Your task to perform on an android device: Open Reddit.com Image 0: 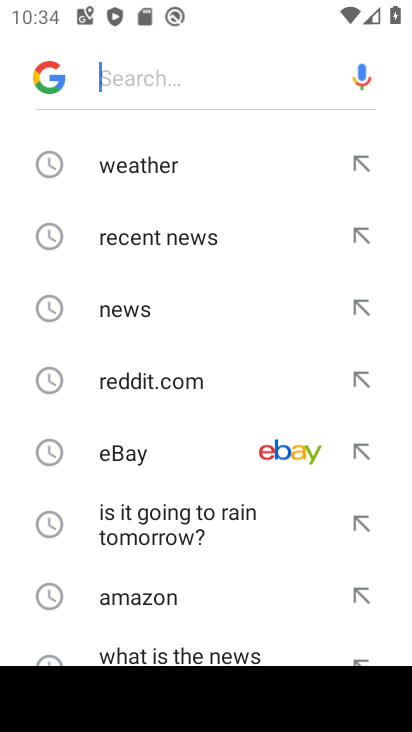
Step 0: press home button
Your task to perform on an android device: Open Reddit.com Image 1: 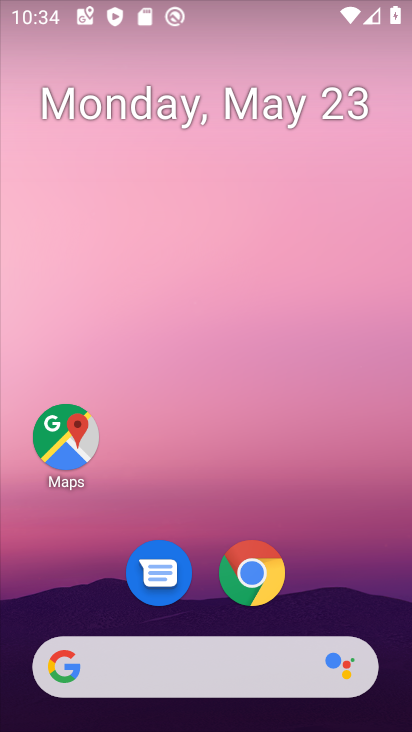
Step 1: drag from (256, 588) to (339, 176)
Your task to perform on an android device: Open Reddit.com Image 2: 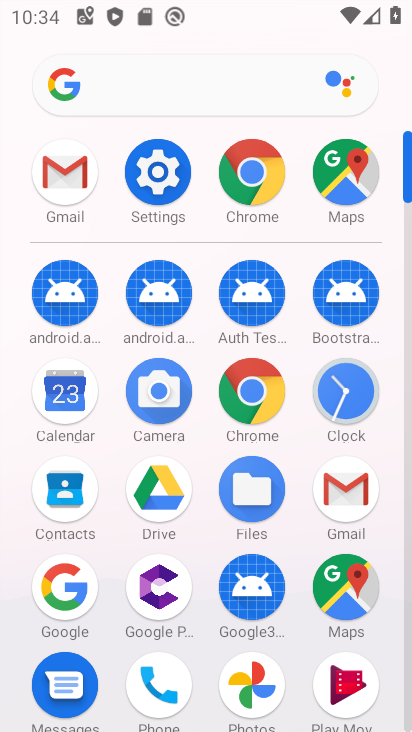
Step 2: click (255, 197)
Your task to perform on an android device: Open Reddit.com Image 3: 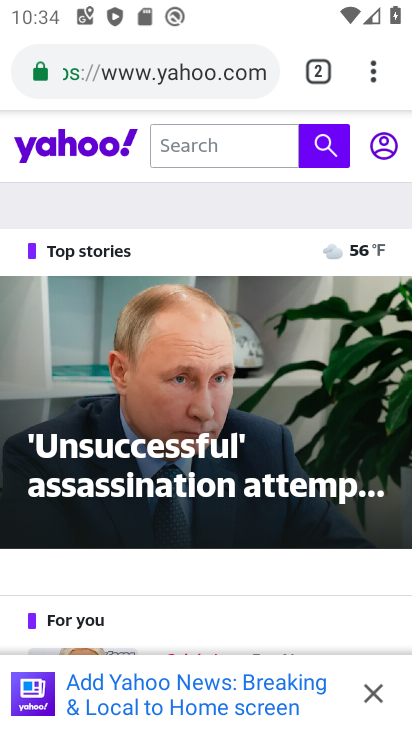
Step 3: click (251, 73)
Your task to perform on an android device: Open Reddit.com Image 4: 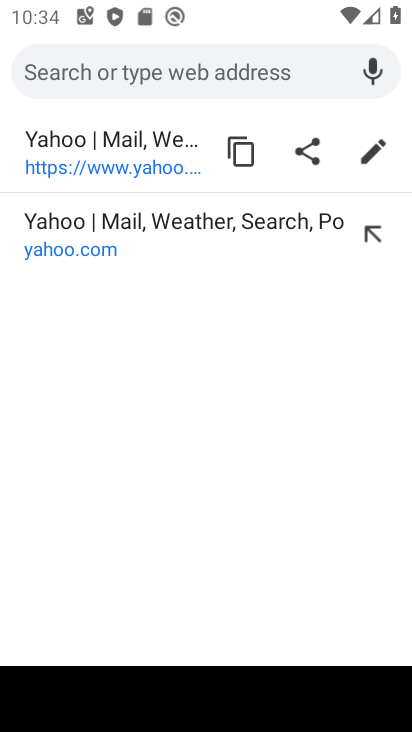
Step 4: type "reddit"
Your task to perform on an android device: Open Reddit.com Image 5: 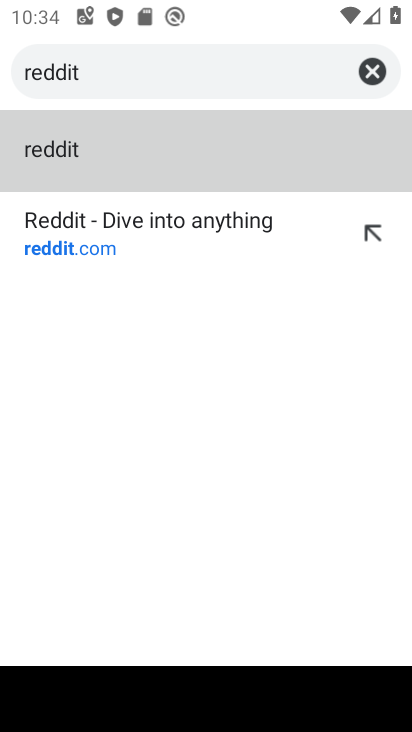
Step 5: click (247, 252)
Your task to perform on an android device: Open Reddit.com Image 6: 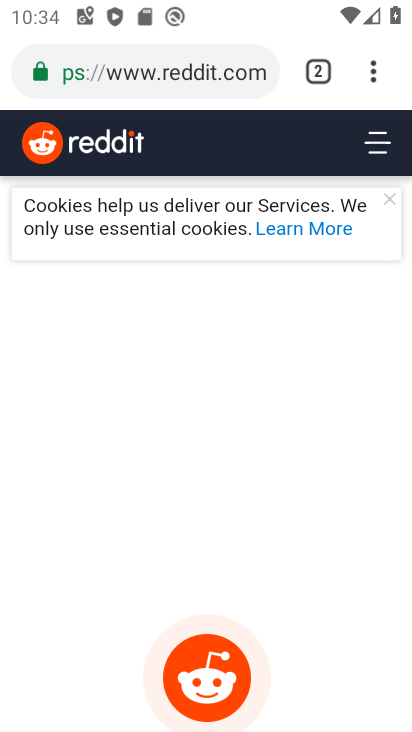
Step 6: task complete